Your task to perform on an android device: change text size in settings app Image 0: 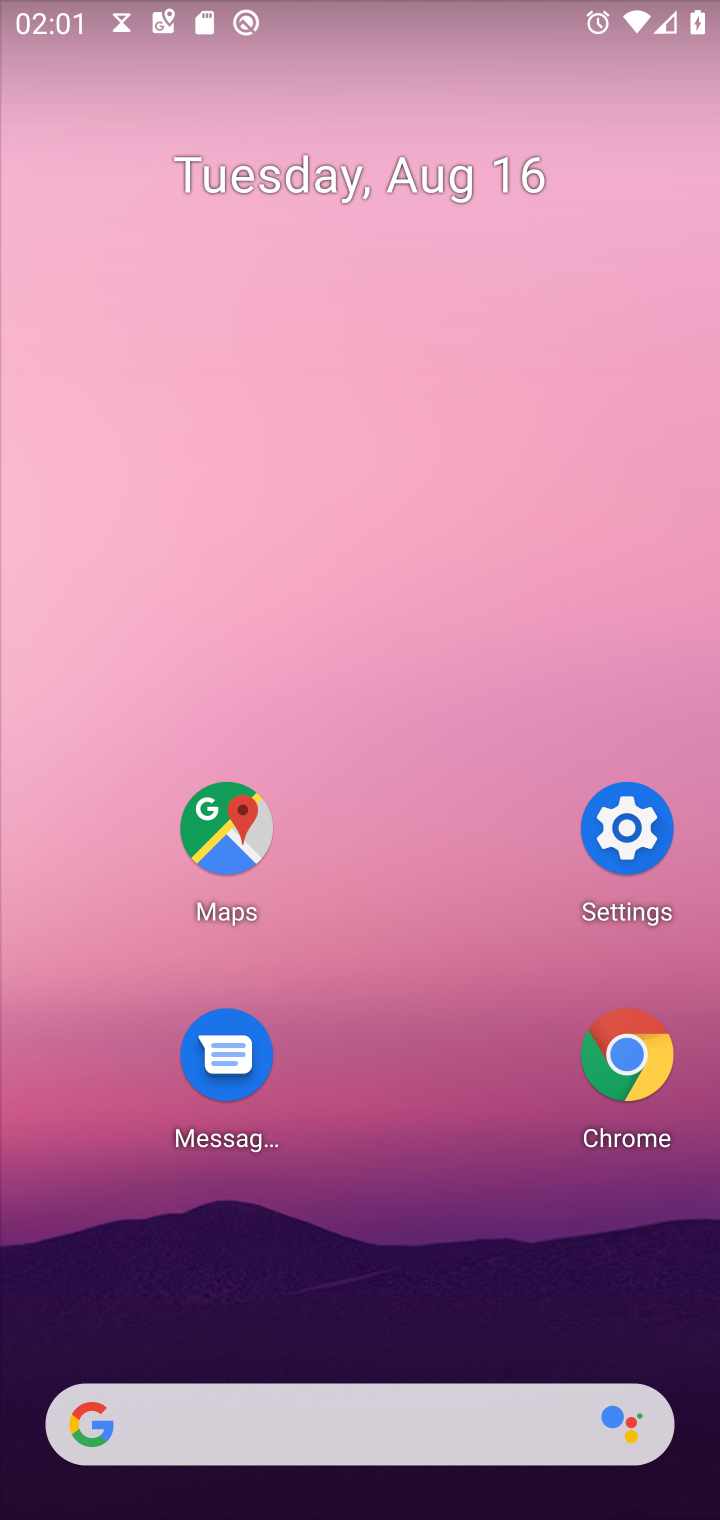
Step 0: click (629, 824)
Your task to perform on an android device: change text size in settings app Image 1: 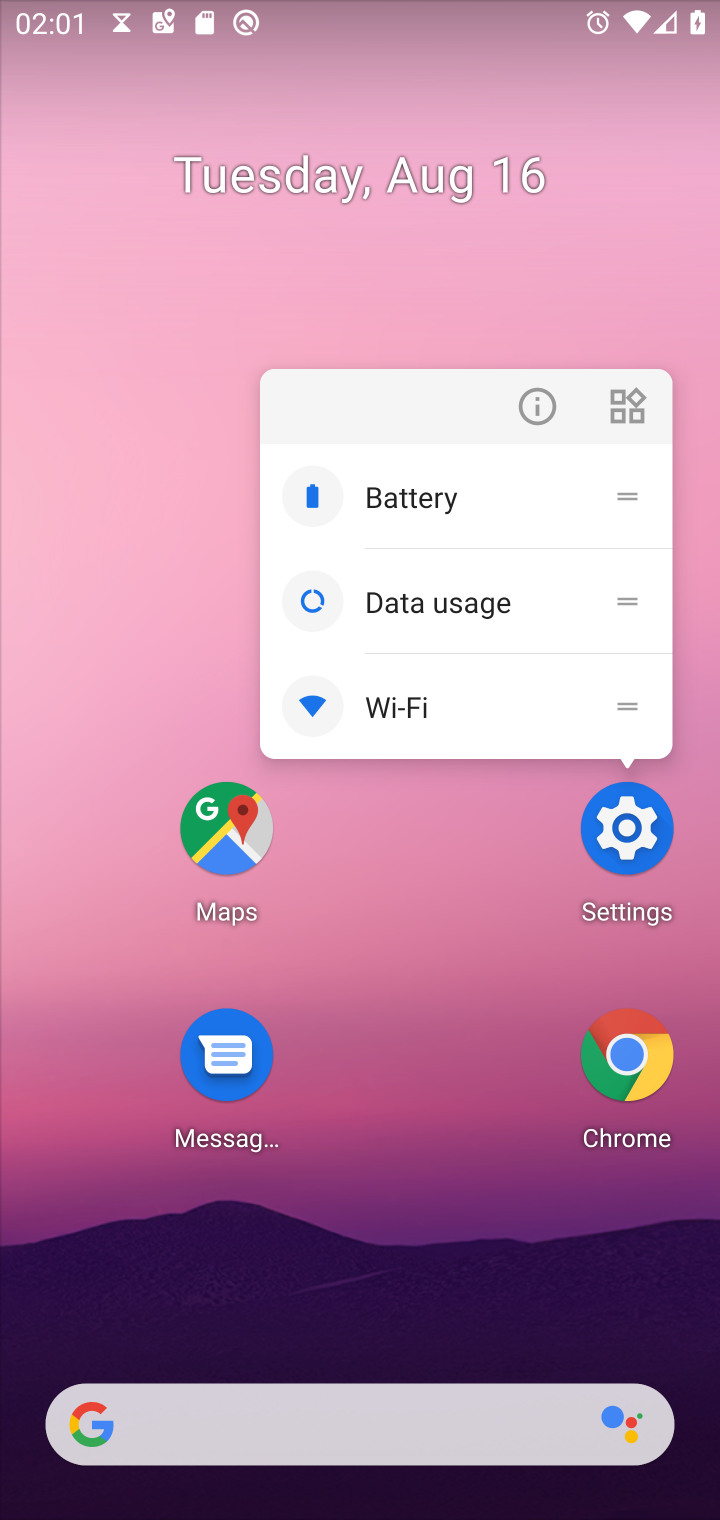
Step 1: click (626, 838)
Your task to perform on an android device: change text size in settings app Image 2: 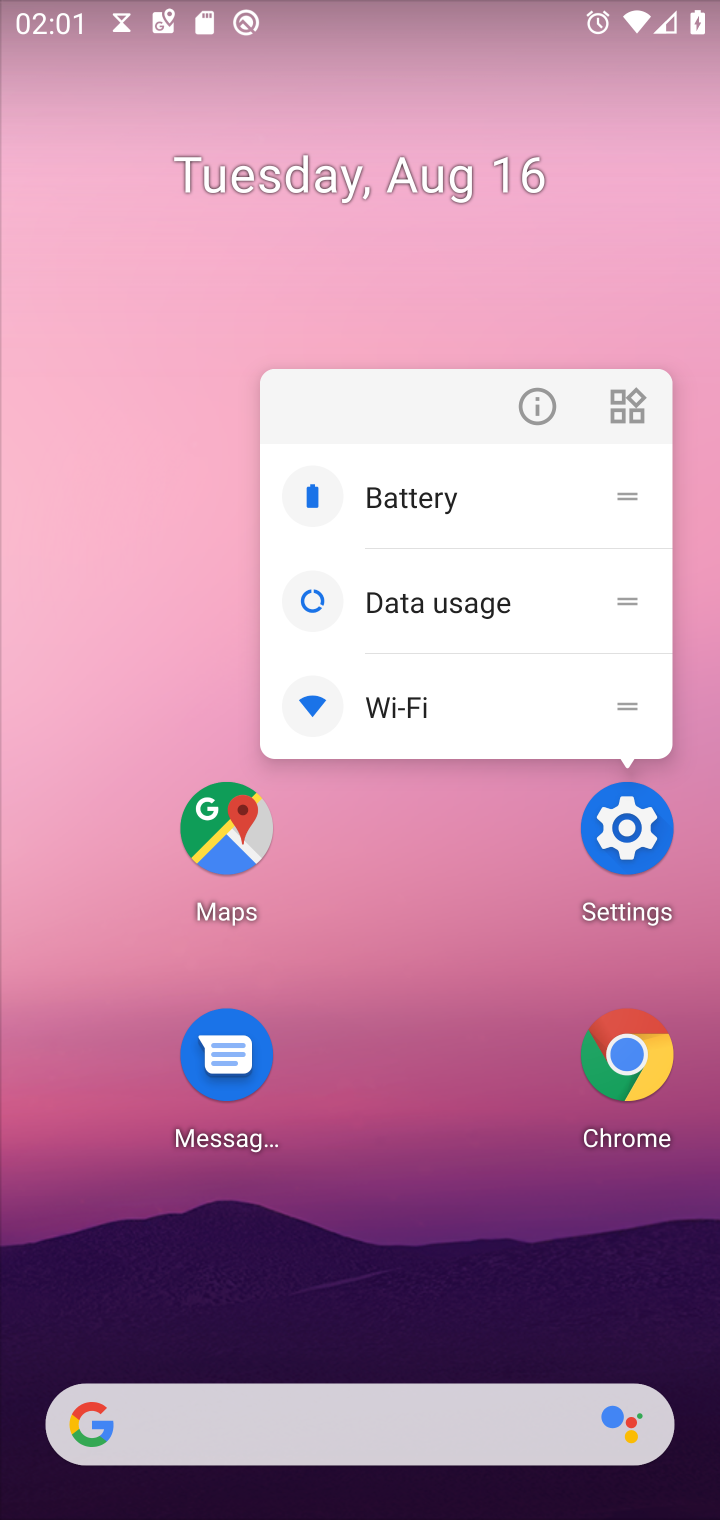
Step 2: click (626, 838)
Your task to perform on an android device: change text size in settings app Image 3: 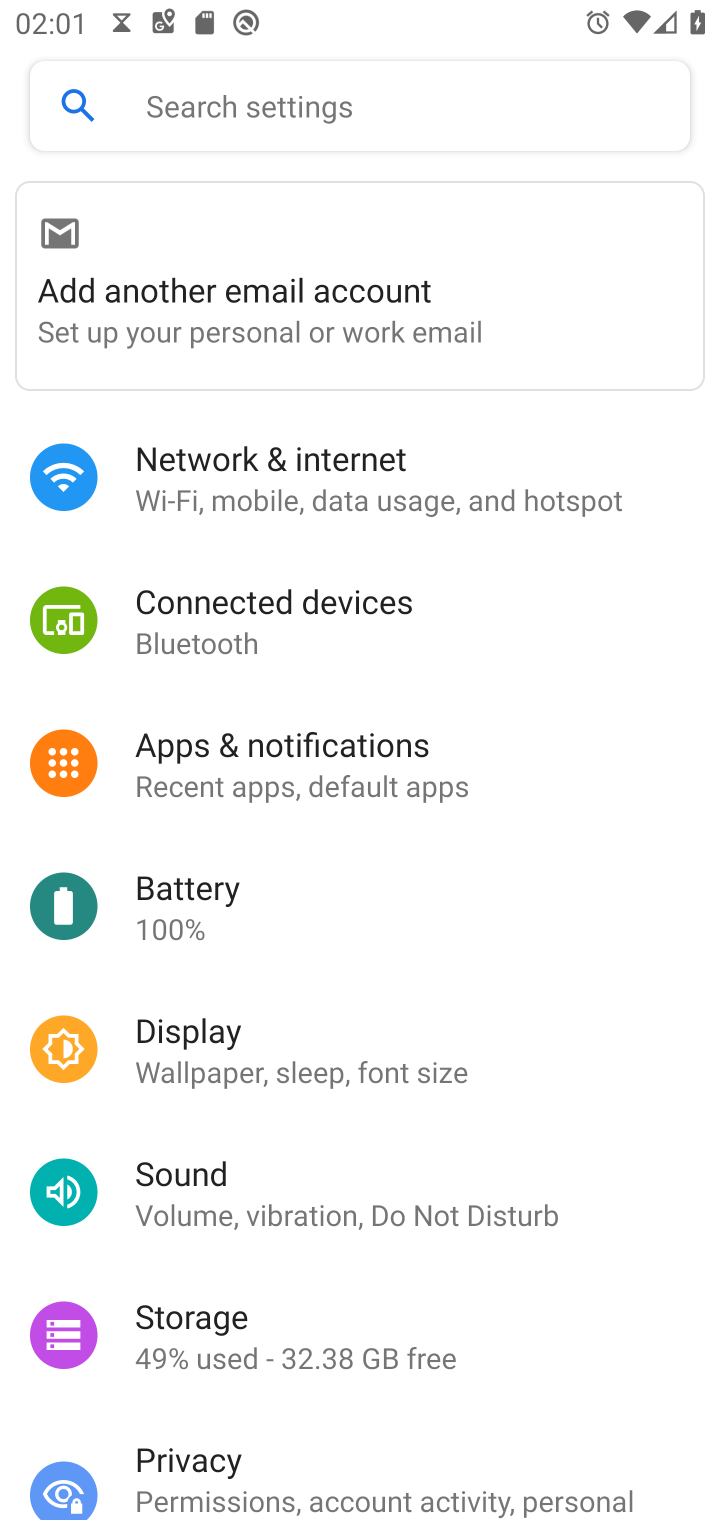
Step 3: click (293, 1063)
Your task to perform on an android device: change text size in settings app Image 4: 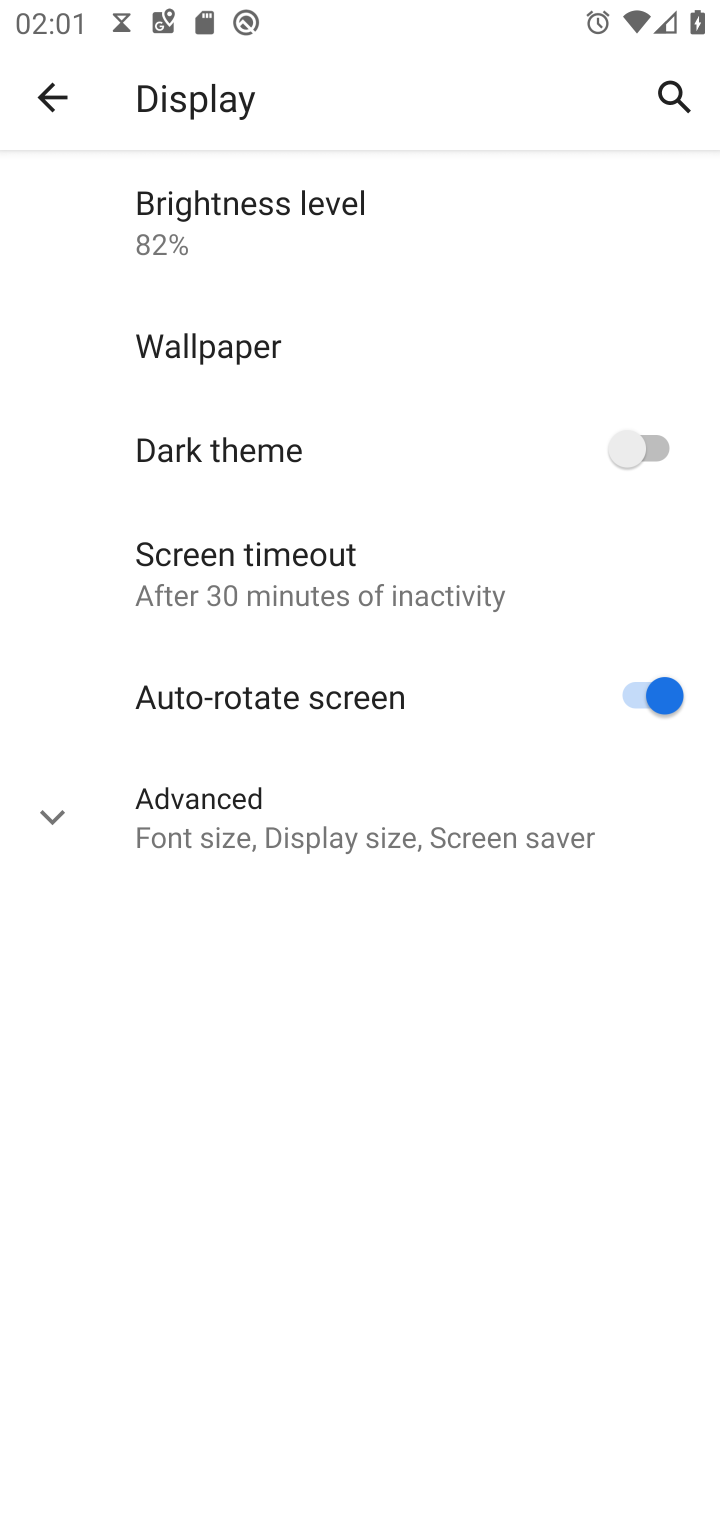
Step 4: click (229, 805)
Your task to perform on an android device: change text size in settings app Image 5: 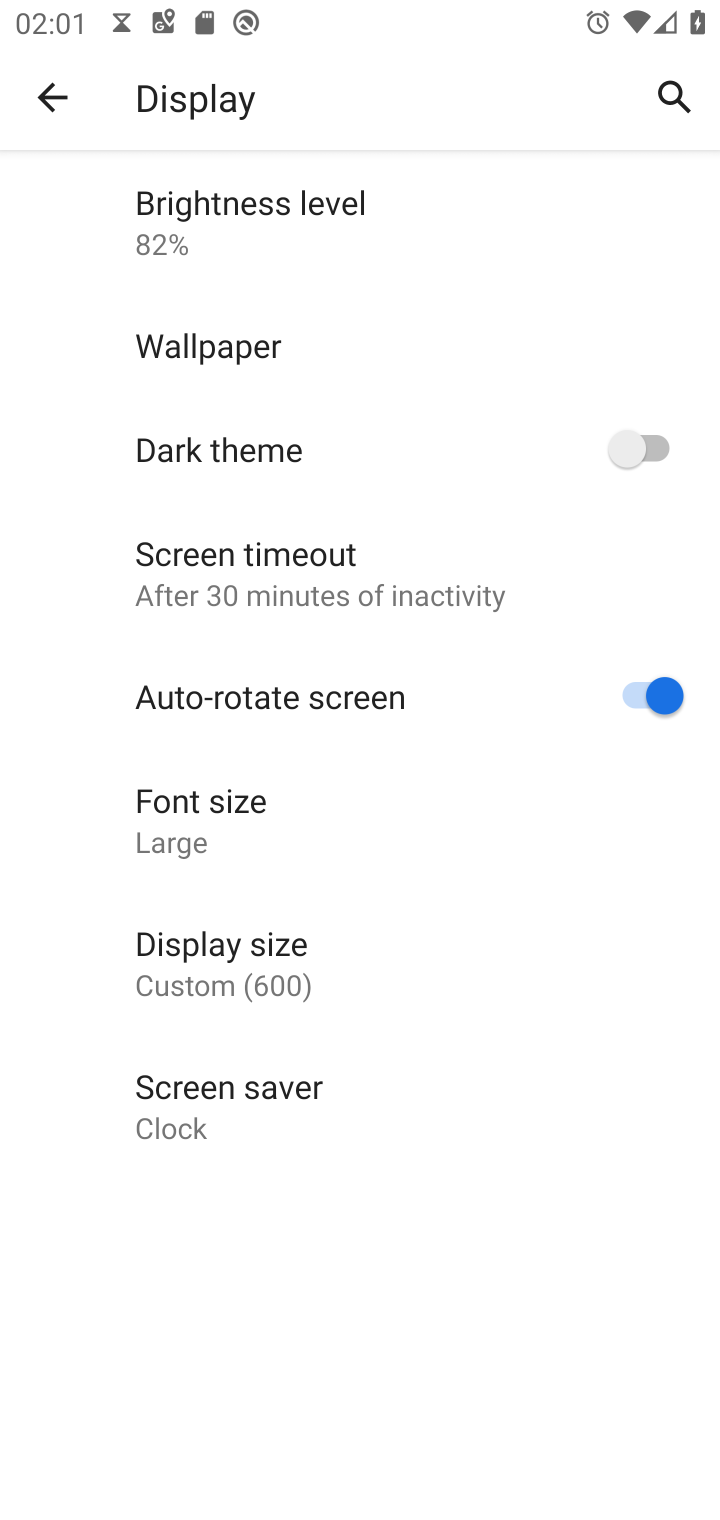
Step 5: click (214, 809)
Your task to perform on an android device: change text size in settings app Image 6: 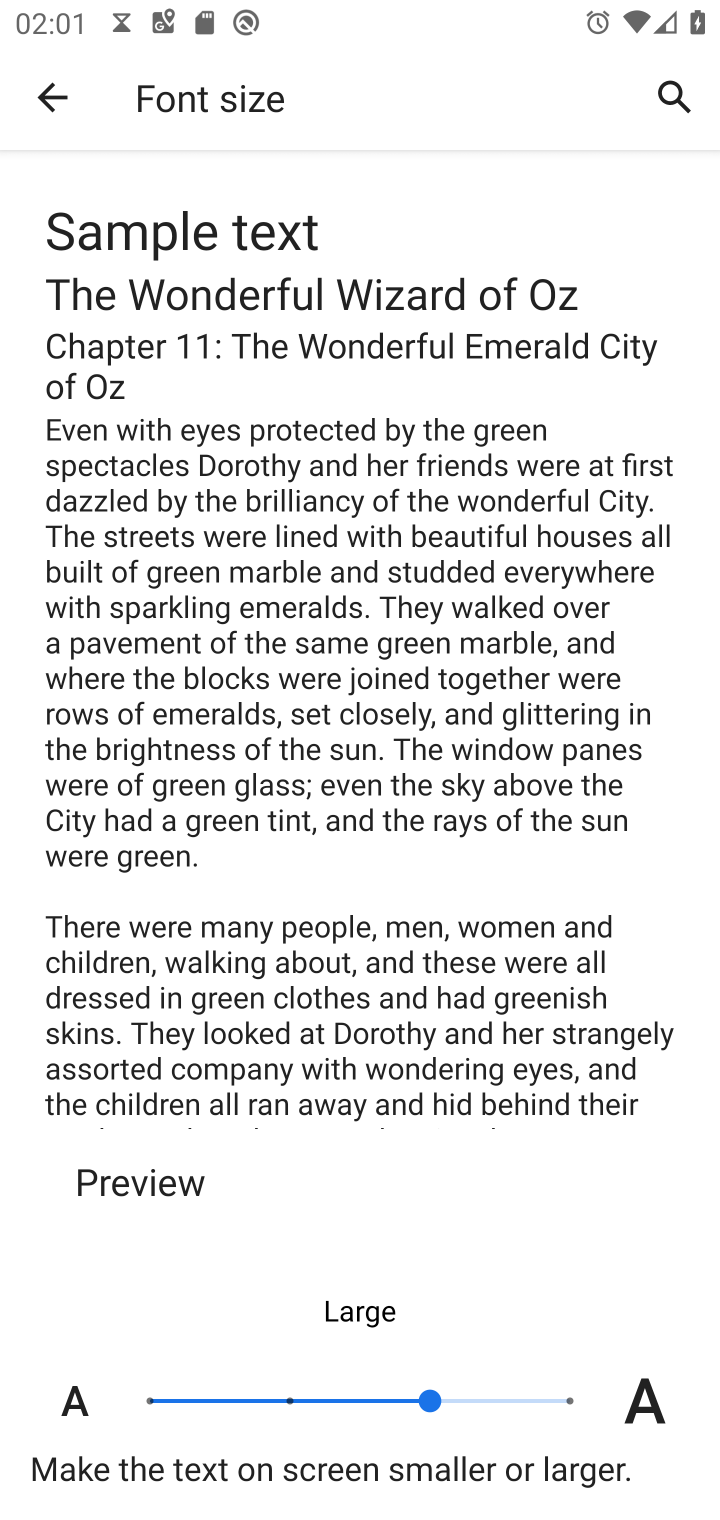
Step 6: click (288, 1394)
Your task to perform on an android device: change text size in settings app Image 7: 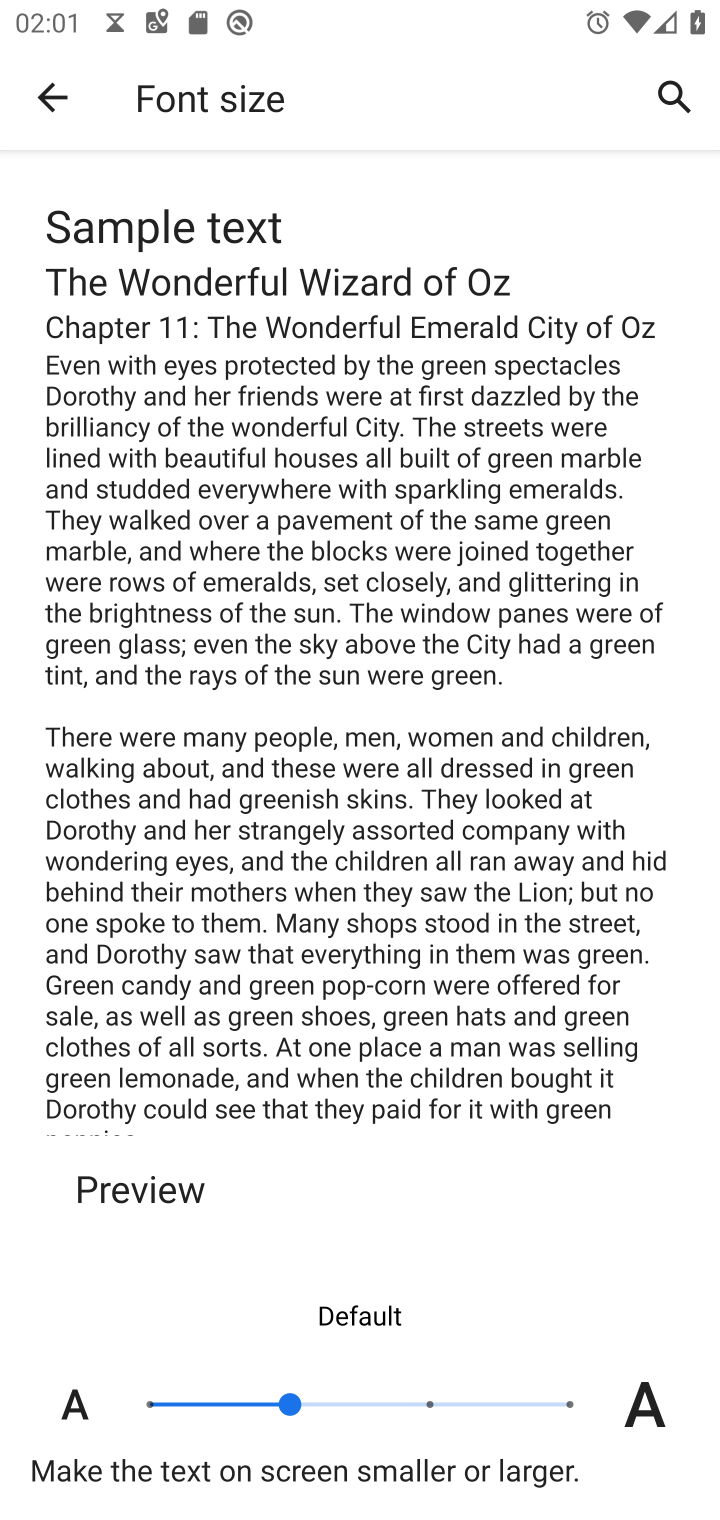
Step 7: task complete